Your task to perform on an android device: turn on location history Image 0: 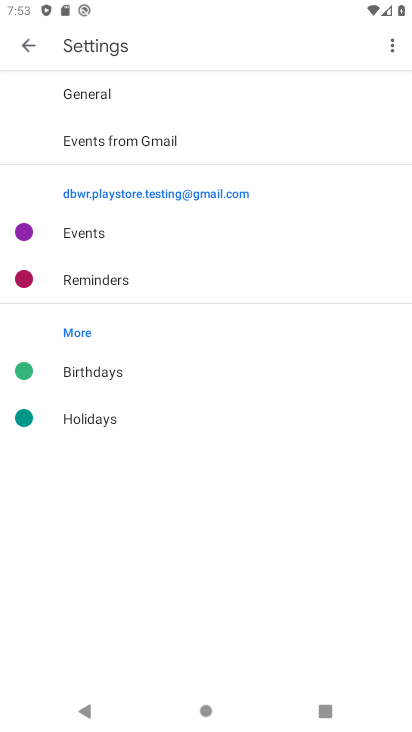
Step 0: press home button
Your task to perform on an android device: turn on location history Image 1: 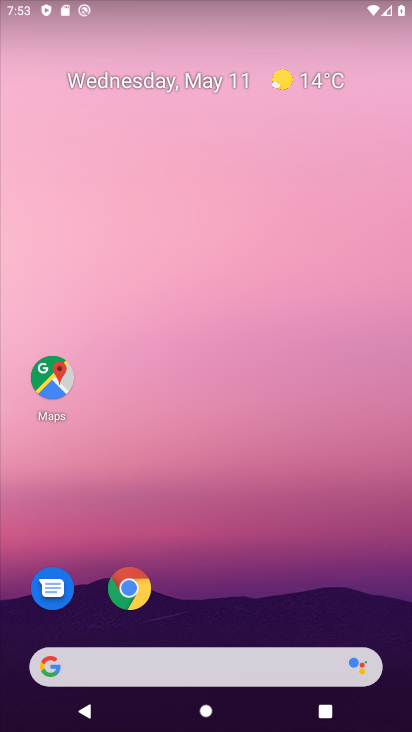
Step 1: drag from (267, 699) to (288, 68)
Your task to perform on an android device: turn on location history Image 2: 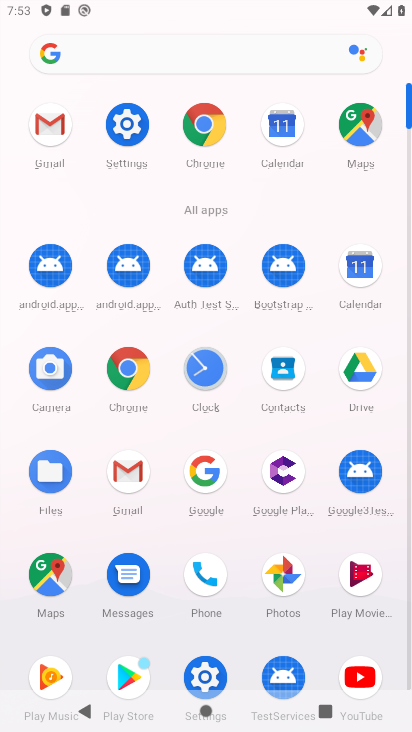
Step 2: click (149, 121)
Your task to perform on an android device: turn on location history Image 3: 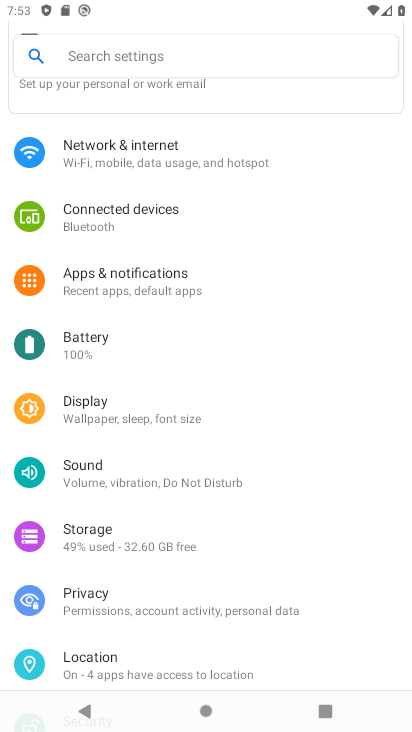
Step 3: click (88, 657)
Your task to perform on an android device: turn on location history Image 4: 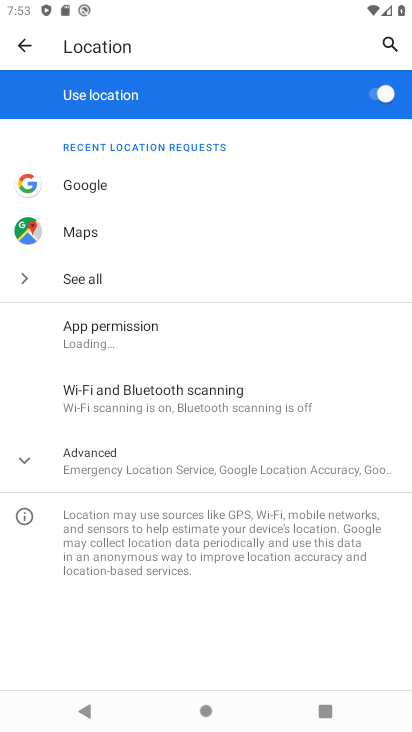
Step 4: click (240, 466)
Your task to perform on an android device: turn on location history Image 5: 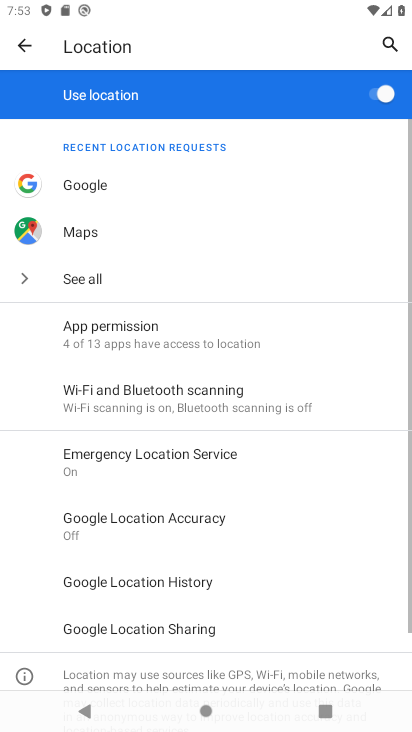
Step 5: click (155, 587)
Your task to perform on an android device: turn on location history Image 6: 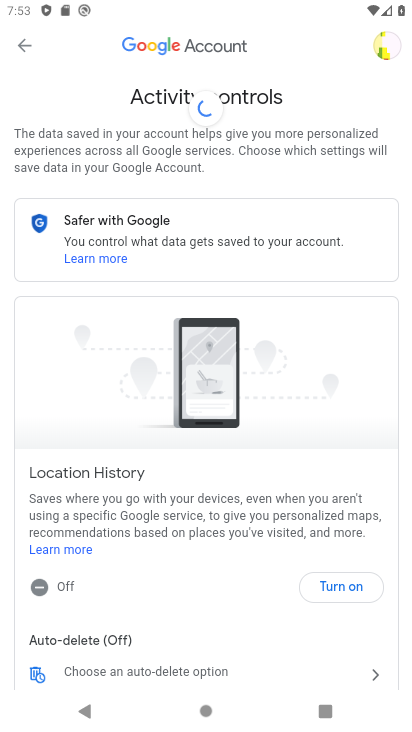
Step 6: click (335, 590)
Your task to perform on an android device: turn on location history Image 7: 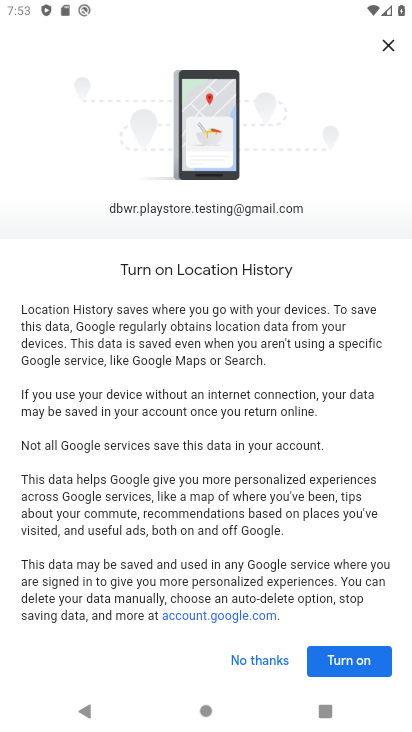
Step 7: drag from (242, 656) to (225, 65)
Your task to perform on an android device: turn on location history Image 8: 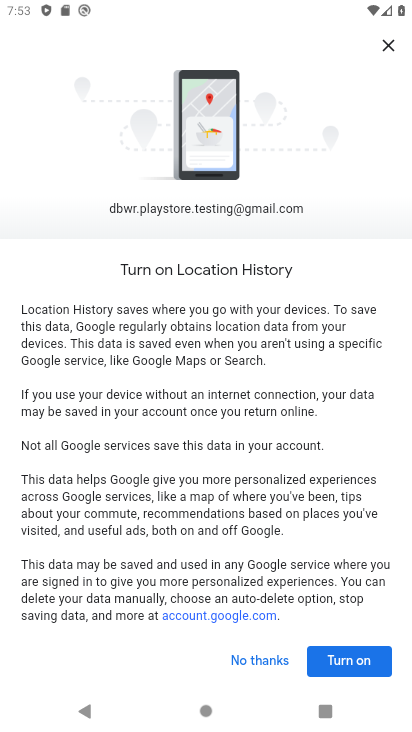
Step 8: click (367, 674)
Your task to perform on an android device: turn on location history Image 9: 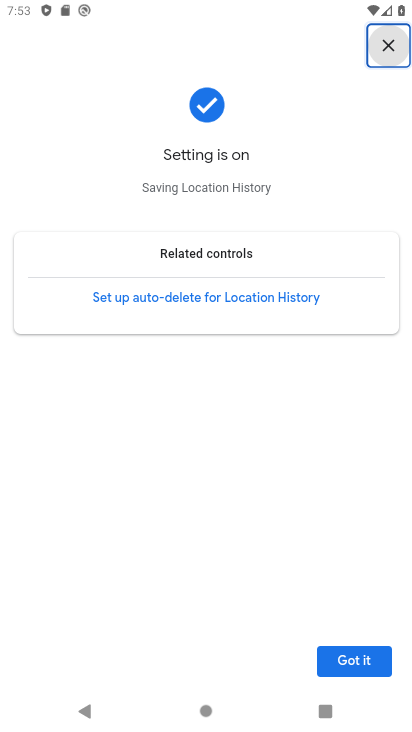
Step 9: click (352, 665)
Your task to perform on an android device: turn on location history Image 10: 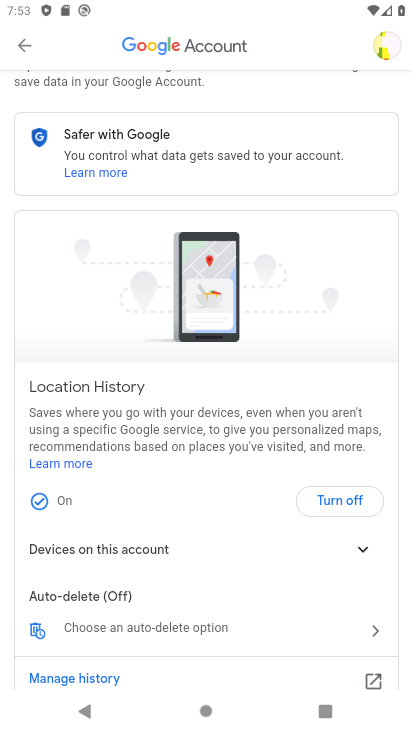
Step 10: task complete